Your task to perform on an android device: show emergency info Image 0: 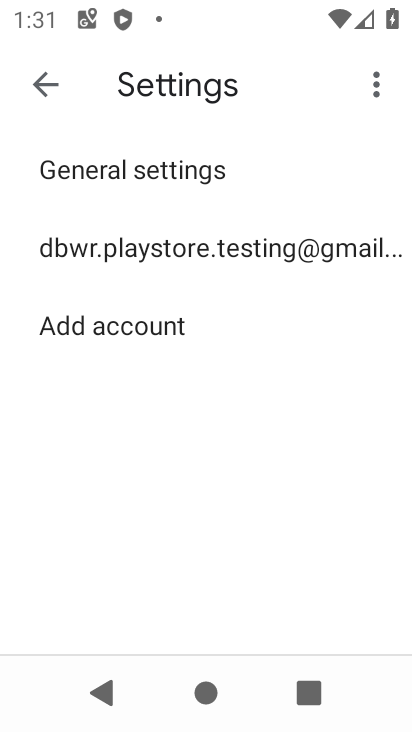
Step 0: press home button
Your task to perform on an android device: show emergency info Image 1: 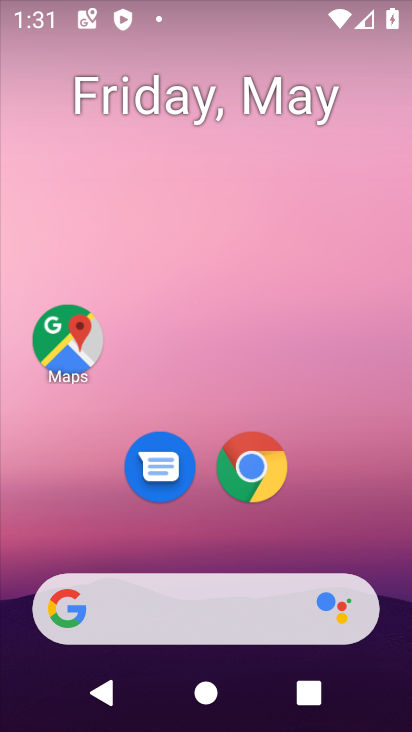
Step 1: drag from (360, 493) to (363, 168)
Your task to perform on an android device: show emergency info Image 2: 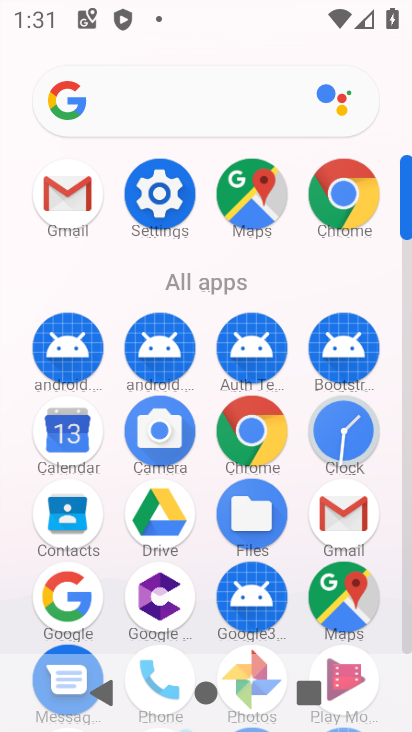
Step 2: click (141, 202)
Your task to perform on an android device: show emergency info Image 3: 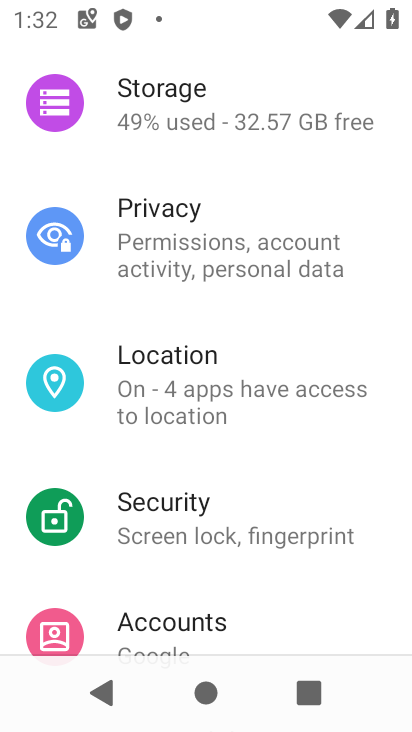
Step 3: drag from (191, 551) to (170, 160)
Your task to perform on an android device: show emergency info Image 4: 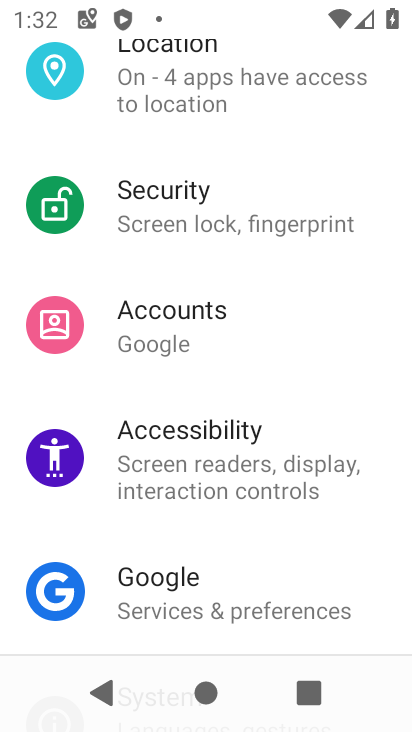
Step 4: drag from (191, 613) to (223, 180)
Your task to perform on an android device: show emergency info Image 5: 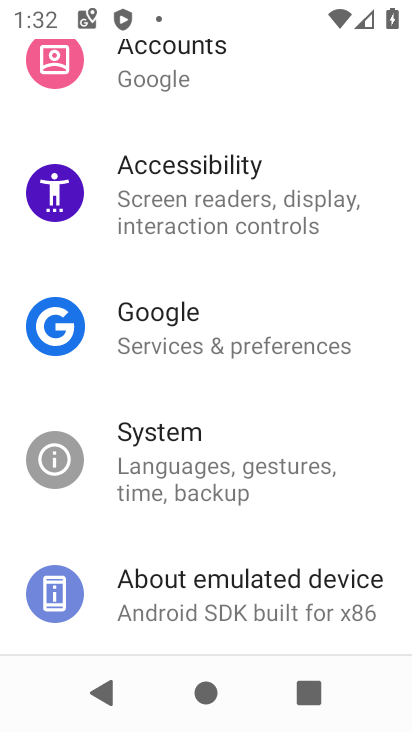
Step 5: drag from (202, 605) to (210, 272)
Your task to perform on an android device: show emergency info Image 6: 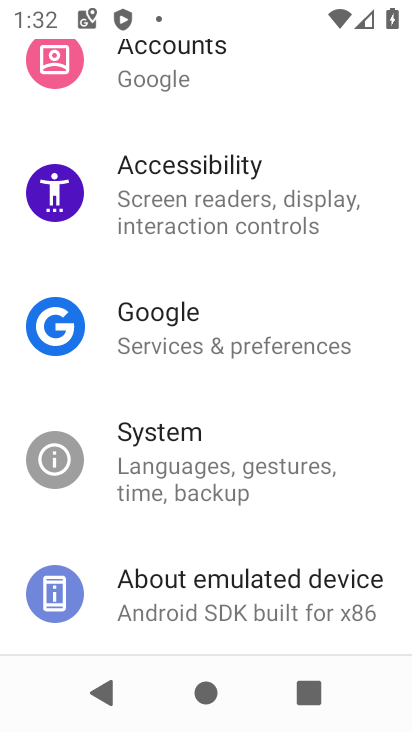
Step 6: click (212, 625)
Your task to perform on an android device: show emergency info Image 7: 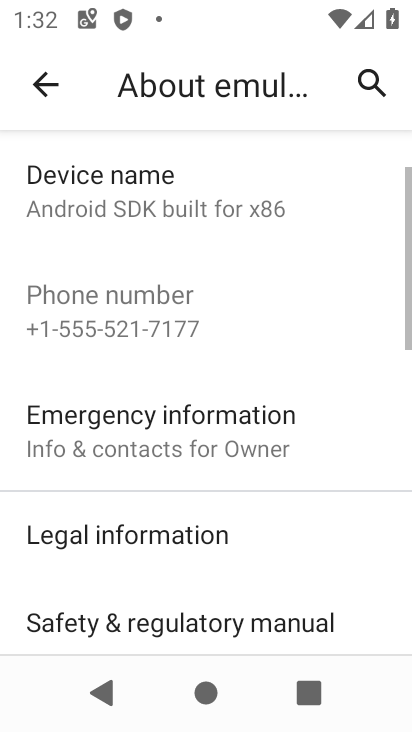
Step 7: drag from (233, 585) to (209, 182)
Your task to perform on an android device: show emergency info Image 8: 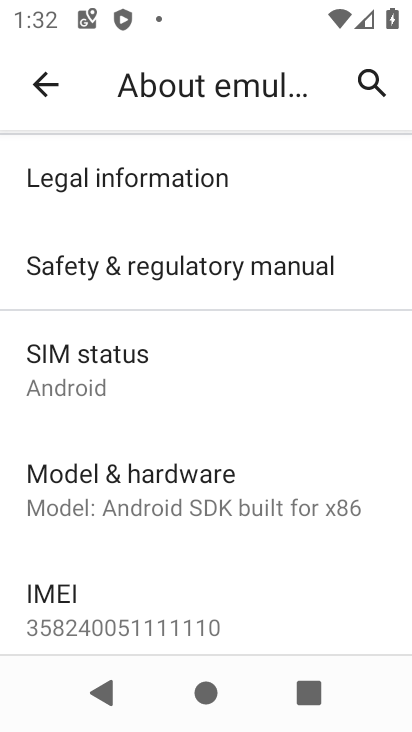
Step 8: drag from (177, 571) to (151, 128)
Your task to perform on an android device: show emergency info Image 9: 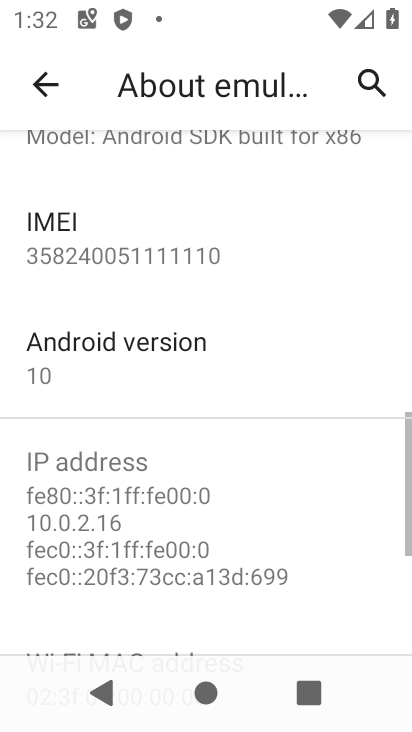
Step 9: drag from (146, 558) to (149, 134)
Your task to perform on an android device: show emergency info Image 10: 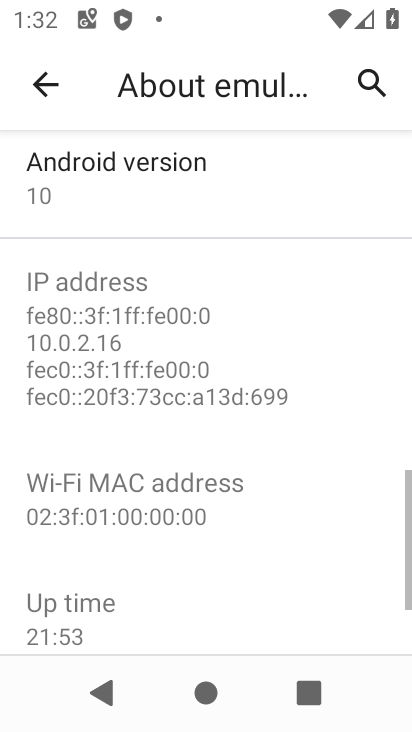
Step 10: drag from (173, 560) to (189, 177)
Your task to perform on an android device: show emergency info Image 11: 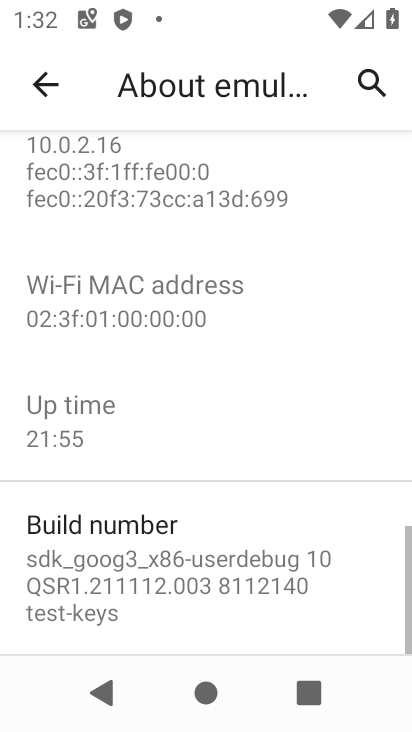
Step 11: drag from (220, 301) to (256, 587)
Your task to perform on an android device: show emergency info Image 12: 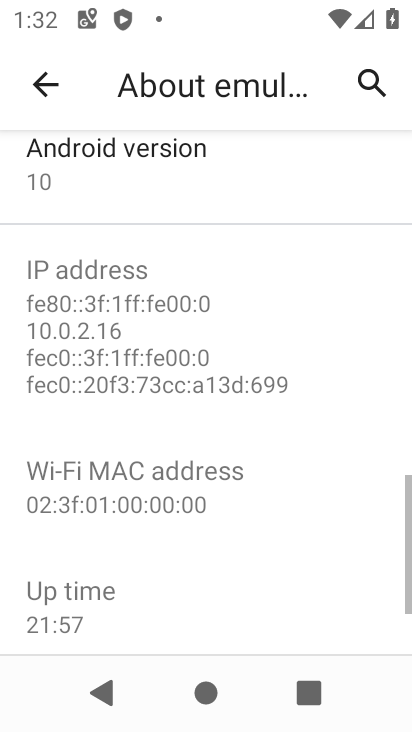
Step 12: drag from (196, 148) to (266, 566)
Your task to perform on an android device: show emergency info Image 13: 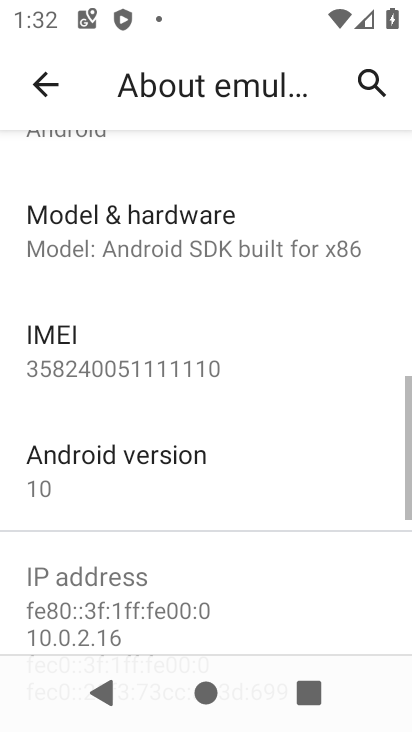
Step 13: drag from (145, 209) to (204, 594)
Your task to perform on an android device: show emergency info Image 14: 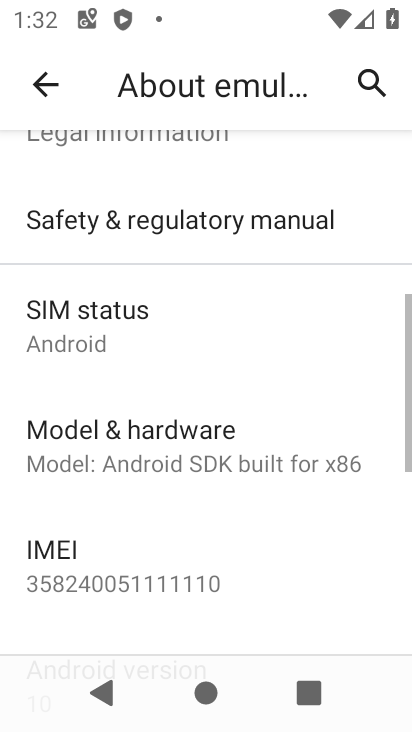
Step 14: drag from (193, 280) to (268, 612)
Your task to perform on an android device: show emergency info Image 15: 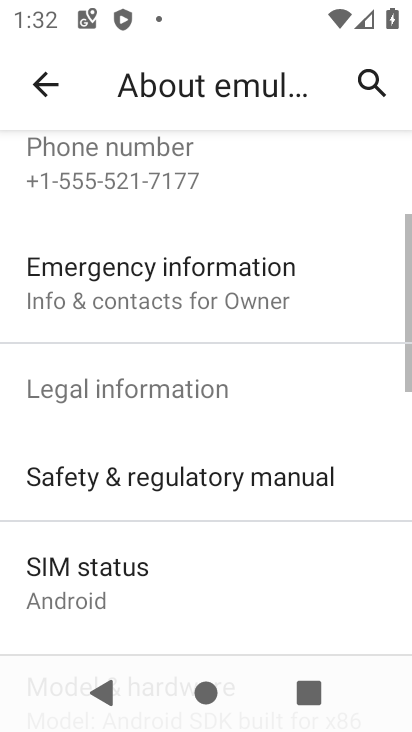
Step 15: click (165, 278)
Your task to perform on an android device: show emergency info Image 16: 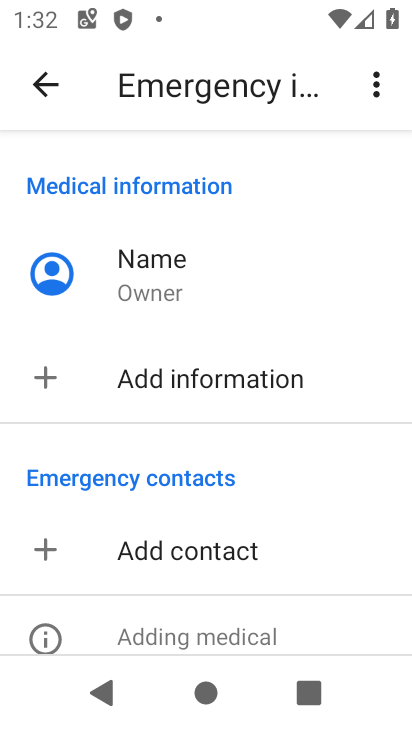
Step 16: task complete